Your task to perform on an android device: check google app version Image 0: 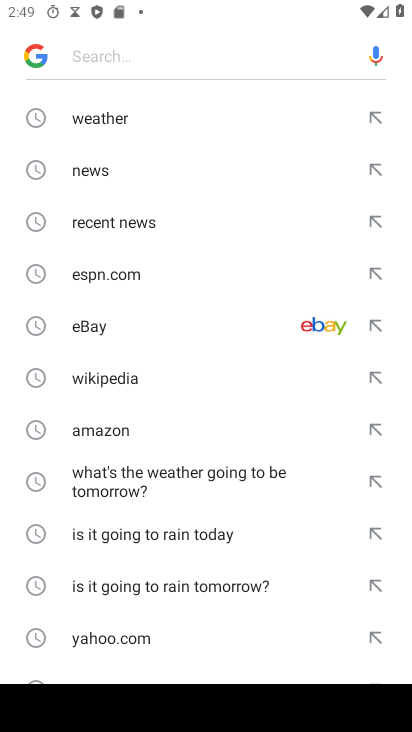
Step 0: press home button
Your task to perform on an android device: check google app version Image 1: 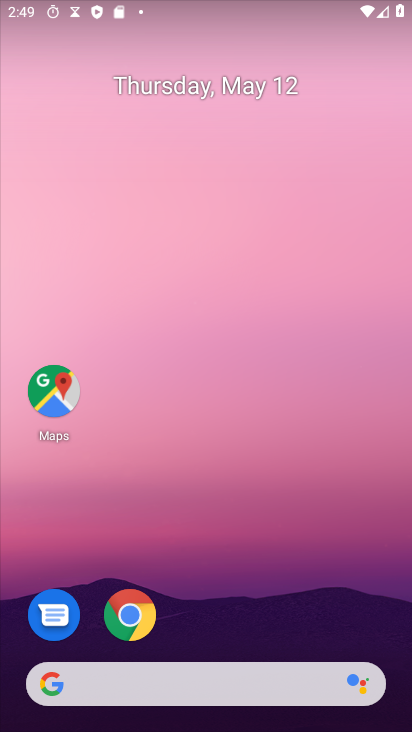
Step 1: drag from (45, 622) to (234, 174)
Your task to perform on an android device: check google app version Image 2: 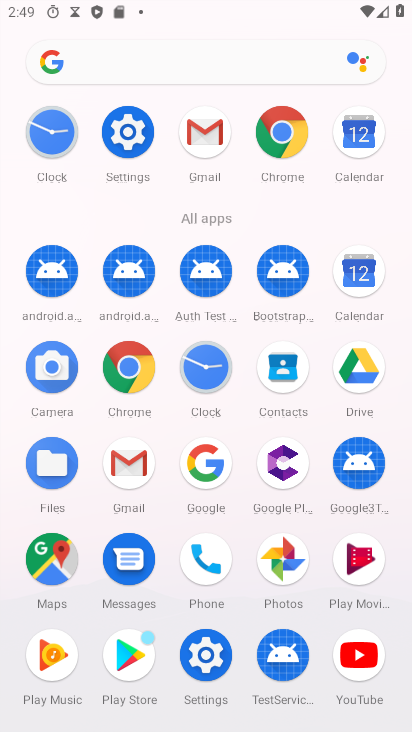
Step 2: click (371, 461)
Your task to perform on an android device: check google app version Image 3: 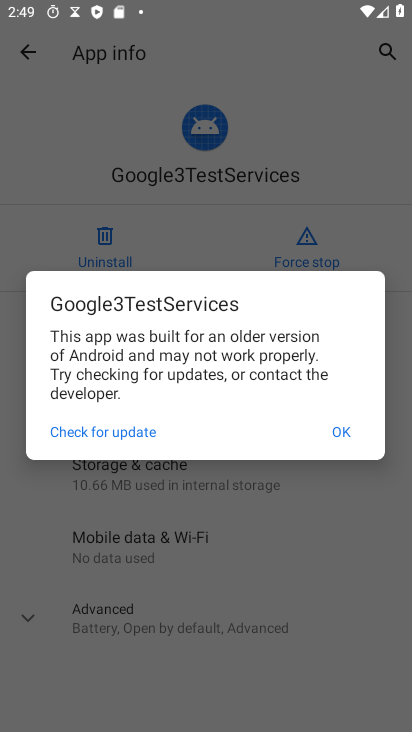
Step 3: click (329, 433)
Your task to perform on an android device: check google app version Image 4: 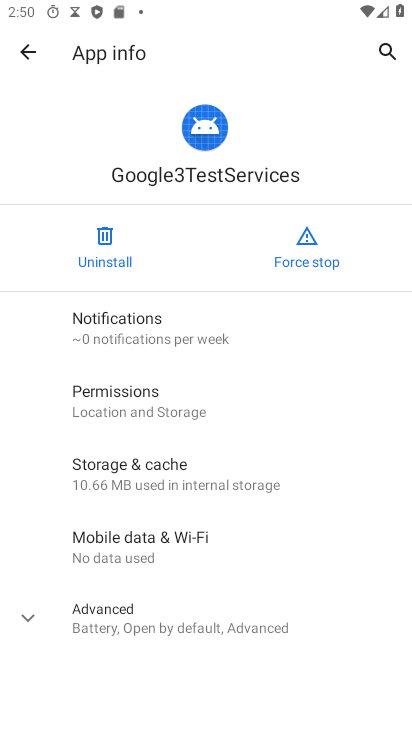
Step 4: click (159, 627)
Your task to perform on an android device: check google app version Image 5: 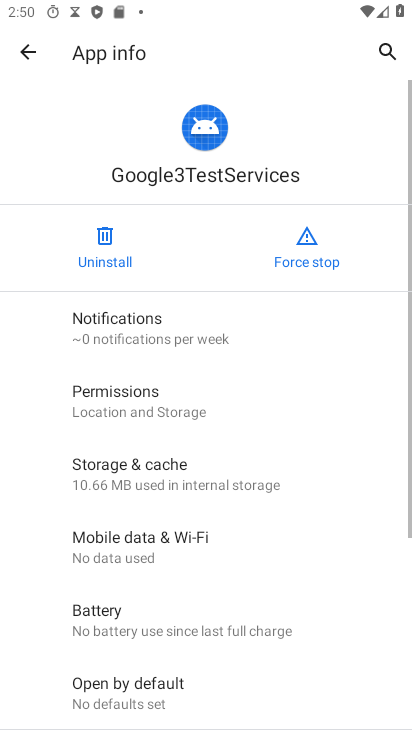
Step 5: drag from (53, 672) to (234, 143)
Your task to perform on an android device: check google app version Image 6: 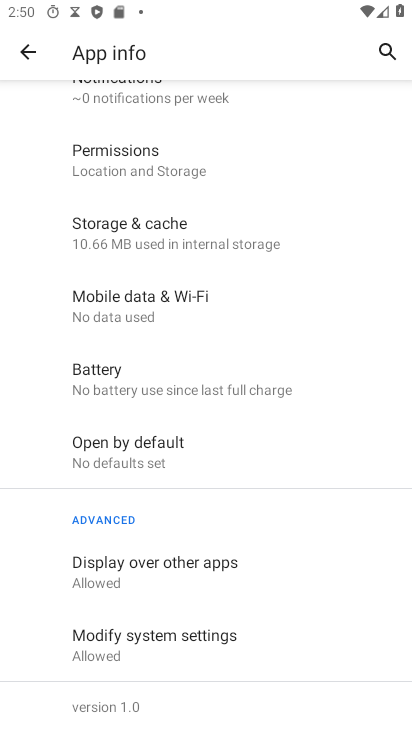
Step 6: click (73, 713)
Your task to perform on an android device: check google app version Image 7: 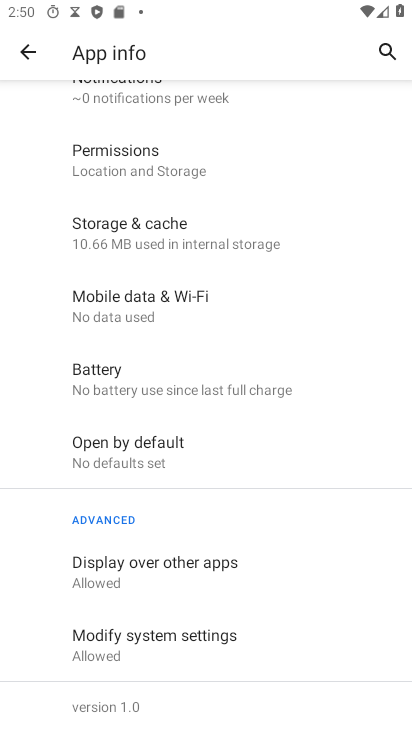
Step 7: task complete